Your task to perform on an android device: Search for the new Nintendo switch on Best Buy Image 0: 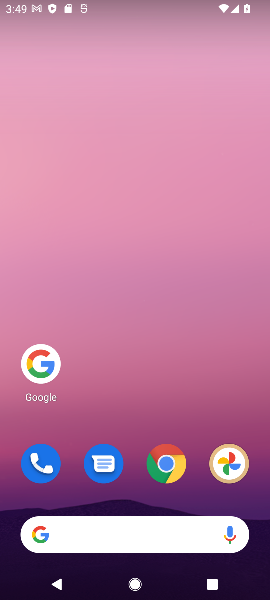
Step 0: drag from (119, 494) to (133, 180)
Your task to perform on an android device: Search for the new Nintendo switch on Best Buy Image 1: 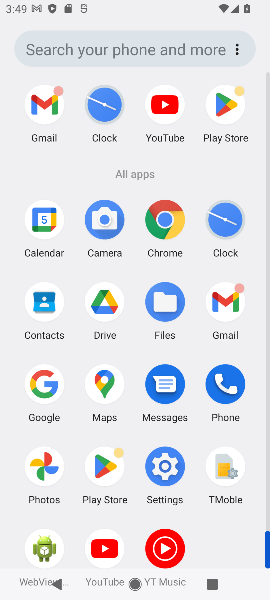
Step 1: click (36, 388)
Your task to perform on an android device: Search for the new Nintendo switch on Best Buy Image 2: 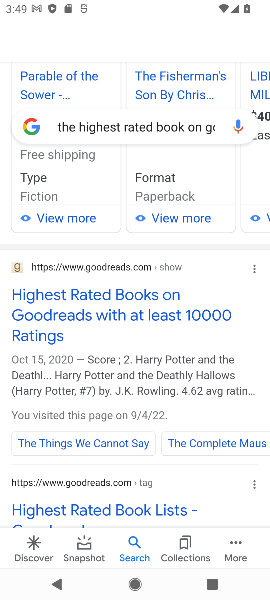
Step 2: drag from (118, 71) to (118, 279)
Your task to perform on an android device: Search for the new Nintendo switch on Best Buy Image 3: 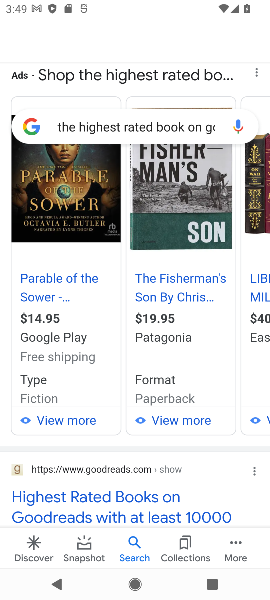
Step 3: click (155, 119)
Your task to perform on an android device: Search for the new Nintendo switch on Best Buy Image 4: 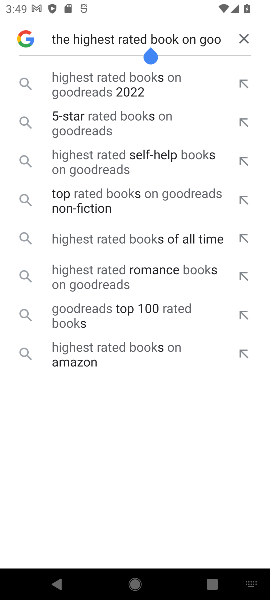
Step 4: click (251, 31)
Your task to perform on an android device: Search for the new Nintendo switch on Best Buy Image 5: 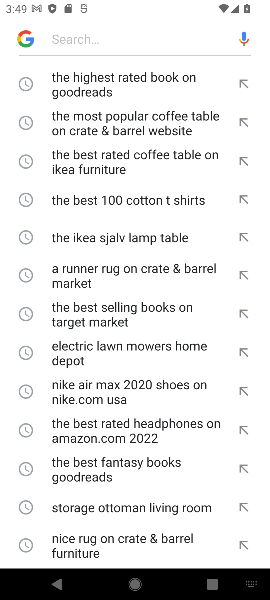
Step 5: click (150, 21)
Your task to perform on an android device: Search for the new Nintendo switch on Best Buy Image 6: 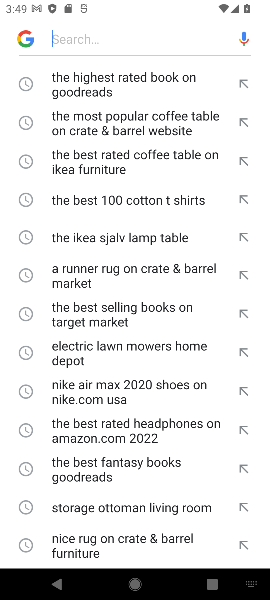
Step 6: type " the new Nintendo switch on Best Buy "
Your task to perform on an android device: Search for the new Nintendo switch on Best Buy Image 7: 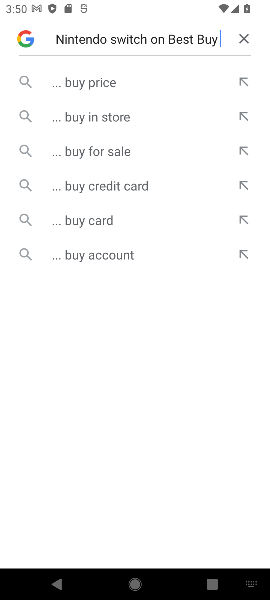
Step 7: click (90, 91)
Your task to perform on an android device: Search for the new Nintendo switch on Best Buy Image 8: 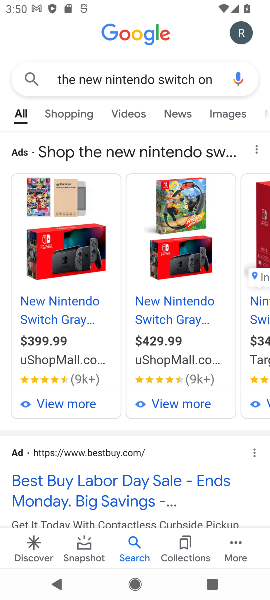
Step 8: drag from (155, 480) to (165, 254)
Your task to perform on an android device: Search for the new Nintendo switch on Best Buy Image 9: 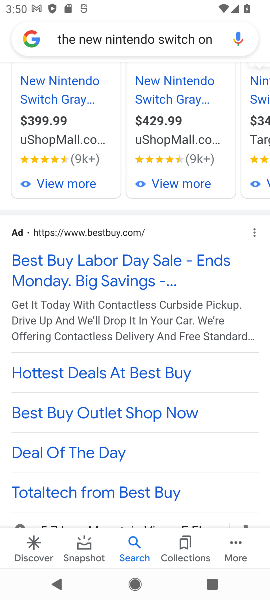
Step 9: drag from (192, 486) to (226, 195)
Your task to perform on an android device: Search for the new Nintendo switch on Best Buy Image 10: 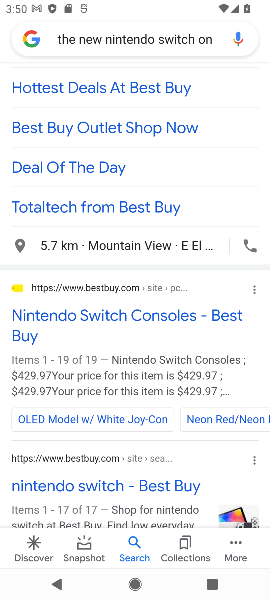
Step 10: drag from (120, 90) to (113, 428)
Your task to perform on an android device: Search for the new Nintendo switch on Best Buy Image 11: 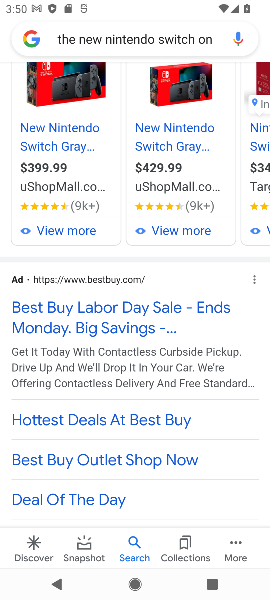
Step 11: drag from (169, 342) to (184, 188)
Your task to perform on an android device: Search for the new Nintendo switch on Best Buy Image 12: 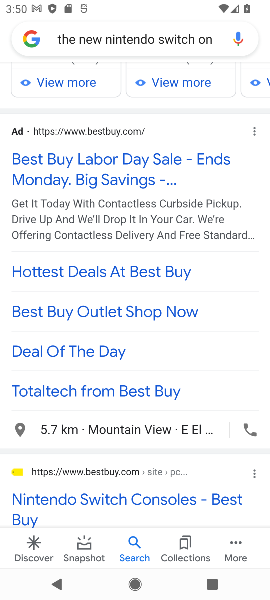
Step 12: click (100, 497)
Your task to perform on an android device: Search for the new Nintendo switch on Best Buy Image 13: 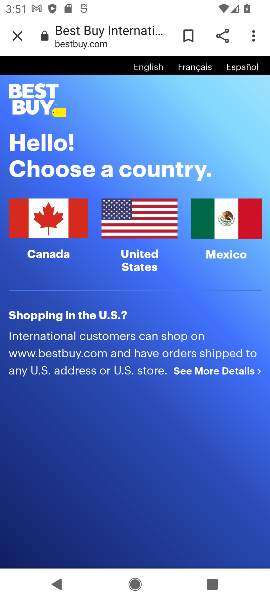
Step 13: click (122, 213)
Your task to perform on an android device: Search for the new Nintendo switch on Best Buy Image 14: 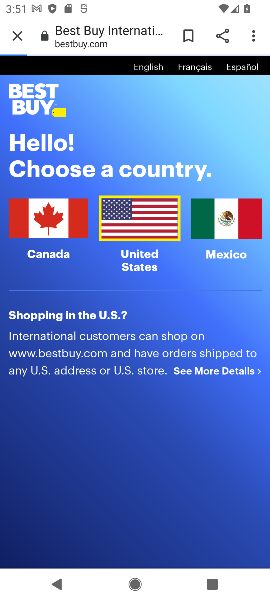
Step 14: click (122, 213)
Your task to perform on an android device: Search for the new Nintendo switch on Best Buy Image 15: 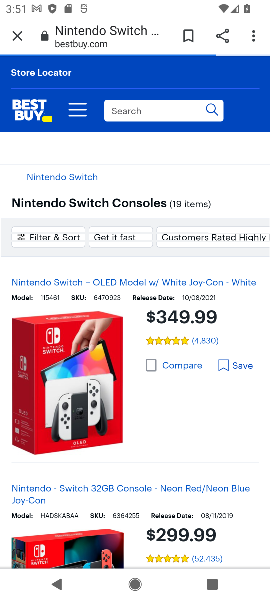
Step 15: drag from (190, 444) to (185, 223)
Your task to perform on an android device: Search for the new Nintendo switch on Best Buy Image 16: 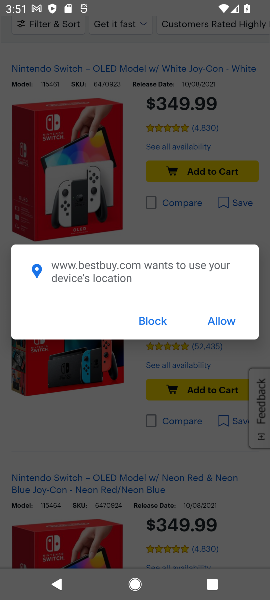
Step 16: click (228, 317)
Your task to perform on an android device: Search for the new Nintendo switch on Best Buy Image 17: 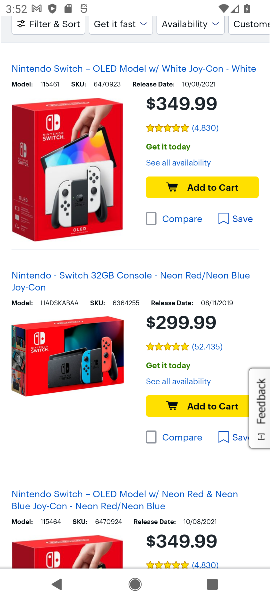
Step 17: task complete